Your task to perform on an android device: When is my next appointment? Image 0: 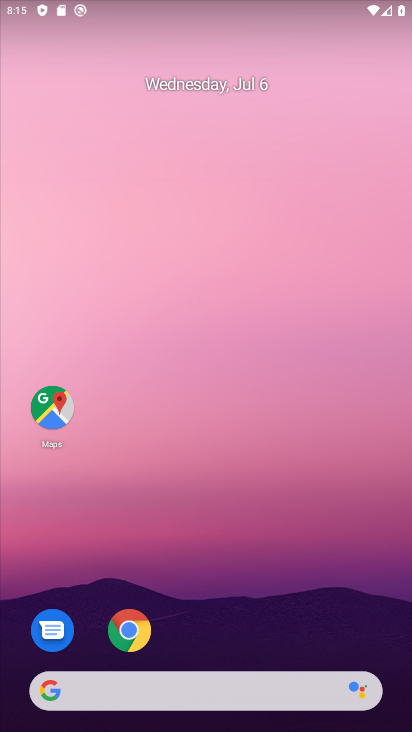
Step 0: drag from (392, 705) to (304, 164)
Your task to perform on an android device: When is my next appointment? Image 1: 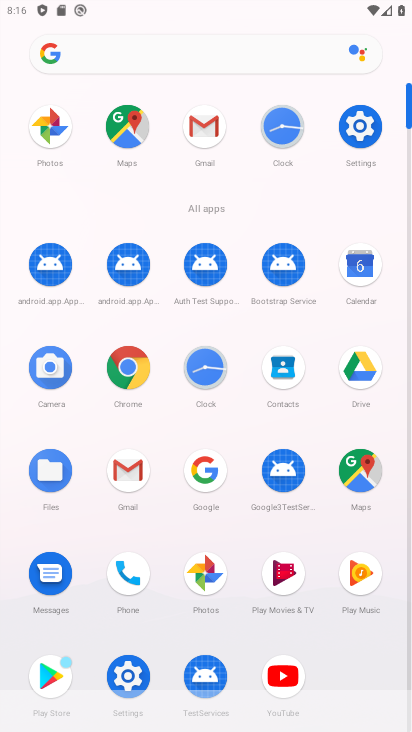
Step 1: click (351, 260)
Your task to perform on an android device: When is my next appointment? Image 2: 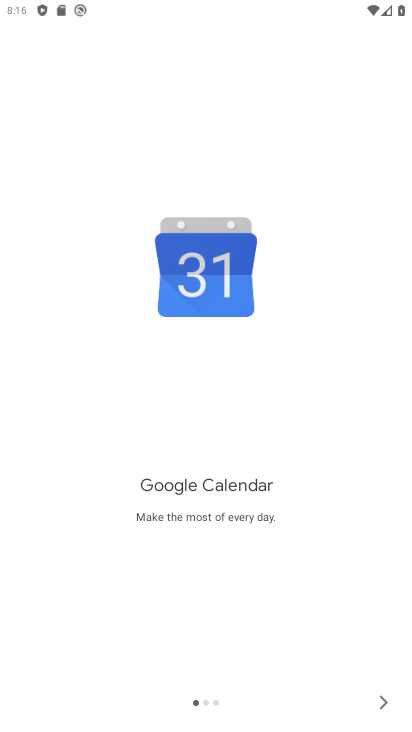
Step 2: click (380, 697)
Your task to perform on an android device: When is my next appointment? Image 3: 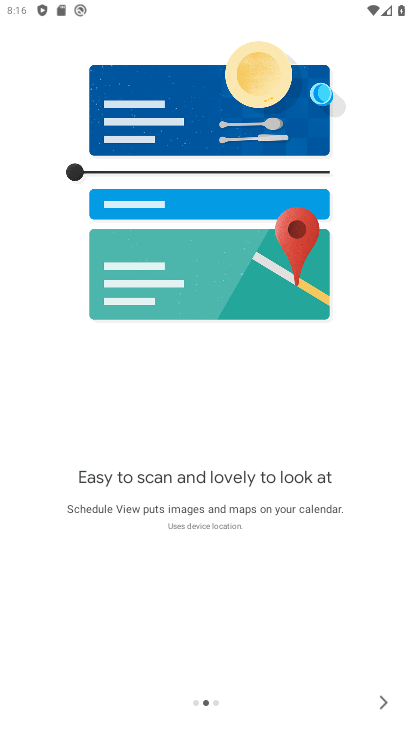
Step 3: click (380, 697)
Your task to perform on an android device: When is my next appointment? Image 4: 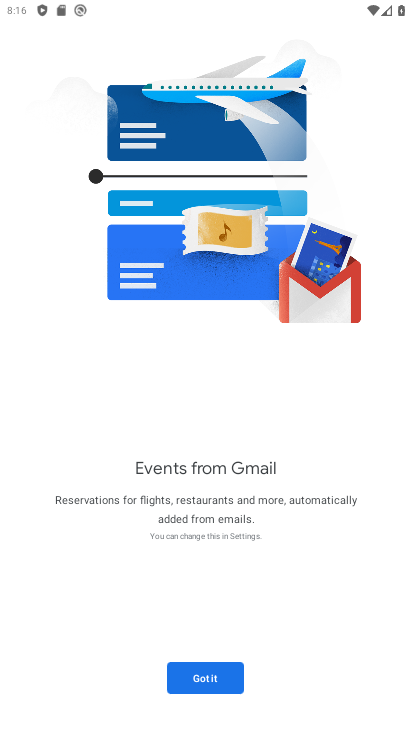
Step 4: click (236, 675)
Your task to perform on an android device: When is my next appointment? Image 5: 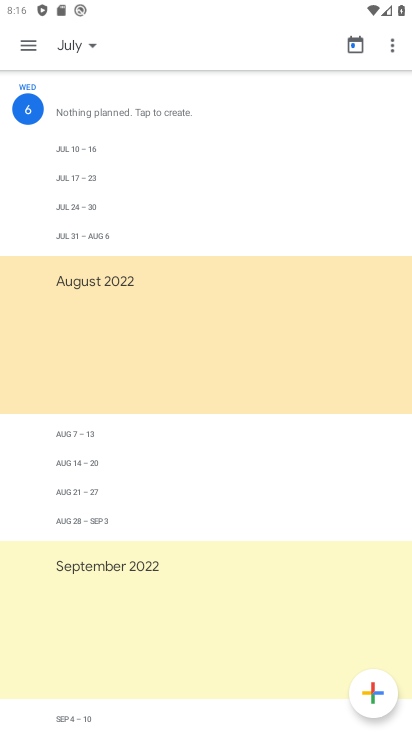
Step 5: click (25, 44)
Your task to perform on an android device: When is my next appointment? Image 6: 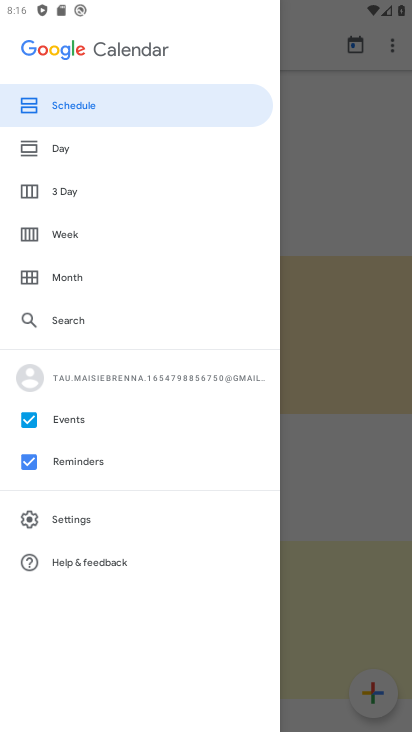
Step 6: click (53, 420)
Your task to perform on an android device: When is my next appointment? Image 7: 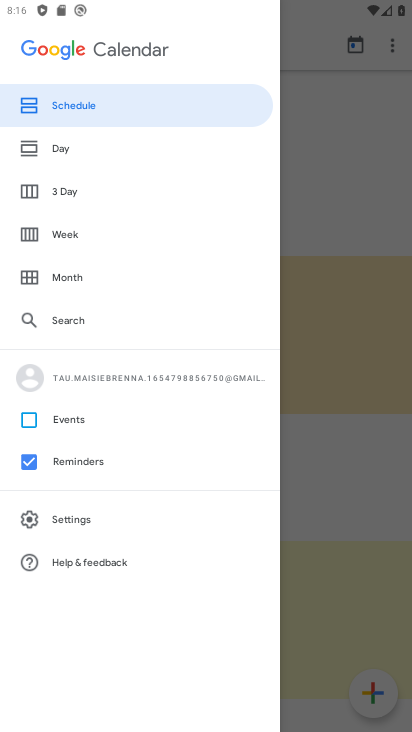
Step 7: click (23, 460)
Your task to perform on an android device: When is my next appointment? Image 8: 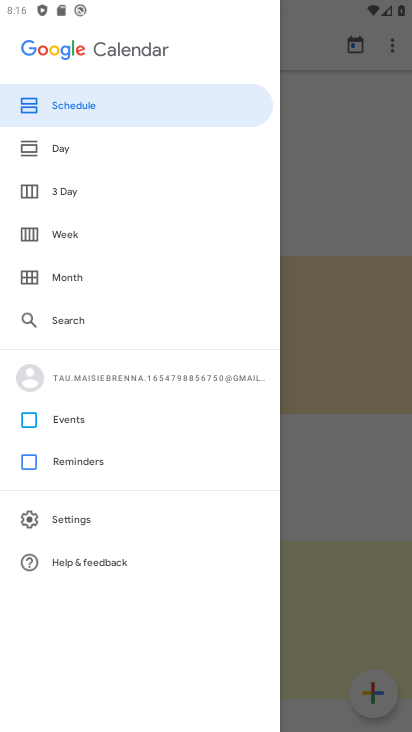
Step 8: click (66, 102)
Your task to perform on an android device: When is my next appointment? Image 9: 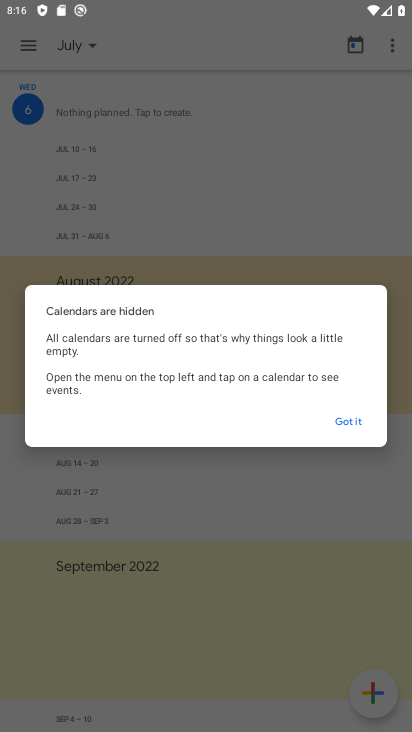
Step 9: click (336, 419)
Your task to perform on an android device: When is my next appointment? Image 10: 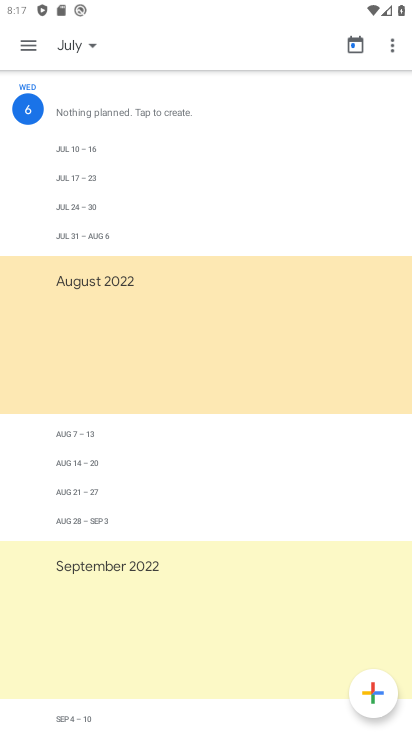
Step 10: task complete